Your task to perform on an android device: Go to internet settings Image 0: 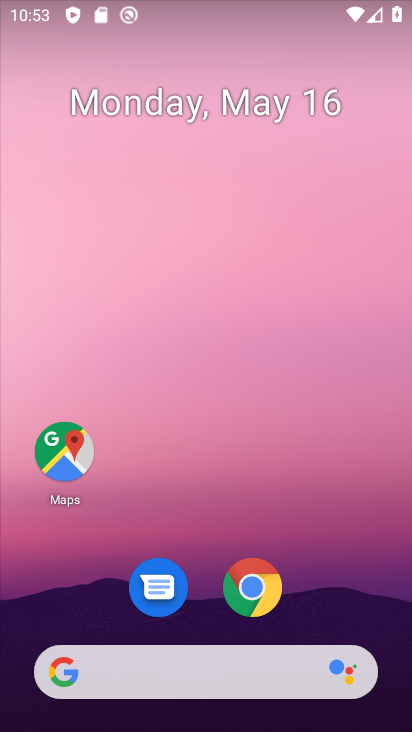
Step 0: drag from (387, 639) to (280, 75)
Your task to perform on an android device: Go to internet settings Image 1: 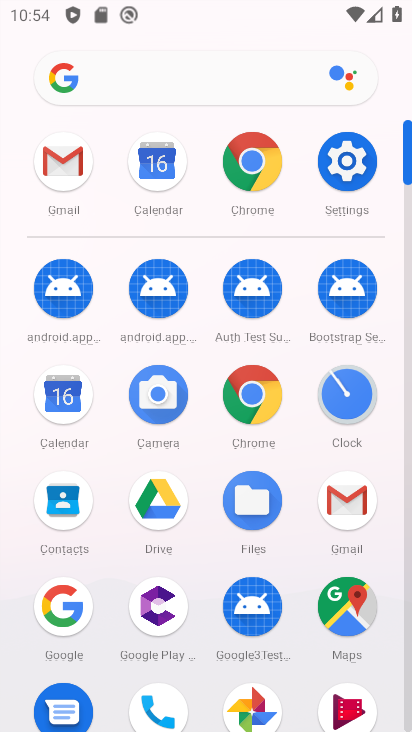
Step 1: click (348, 153)
Your task to perform on an android device: Go to internet settings Image 2: 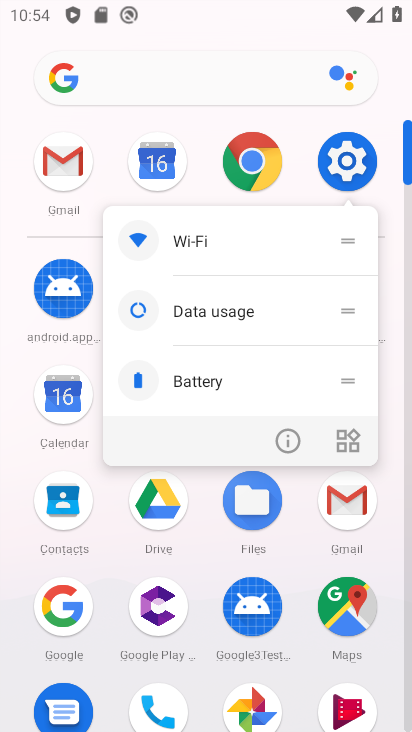
Step 2: click (348, 153)
Your task to perform on an android device: Go to internet settings Image 3: 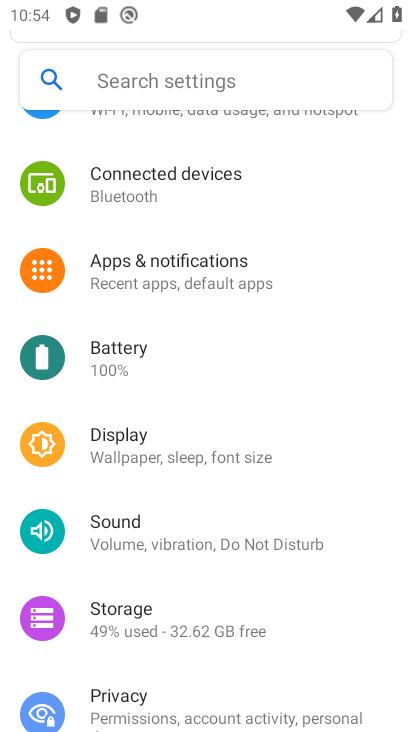
Step 3: drag from (247, 165) to (148, 694)
Your task to perform on an android device: Go to internet settings Image 4: 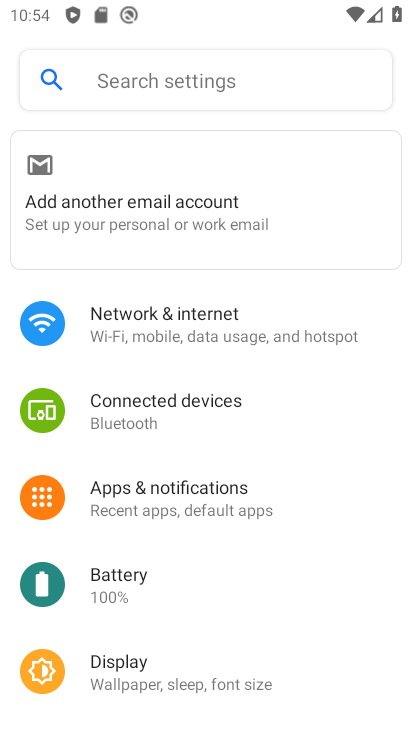
Step 4: click (225, 339)
Your task to perform on an android device: Go to internet settings Image 5: 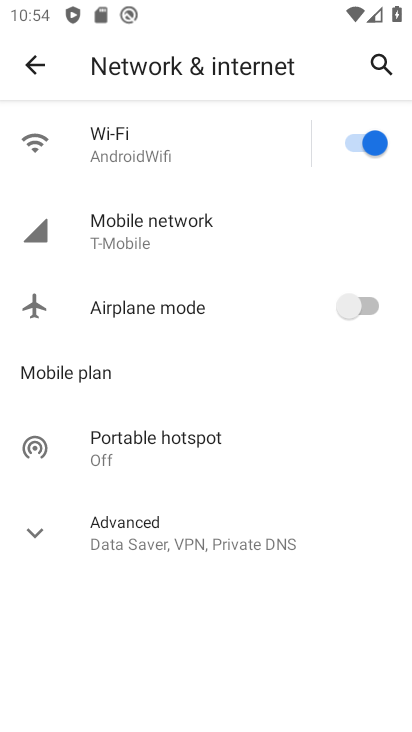
Step 5: task complete